Your task to perform on an android device: Go to battery settings Image 0: 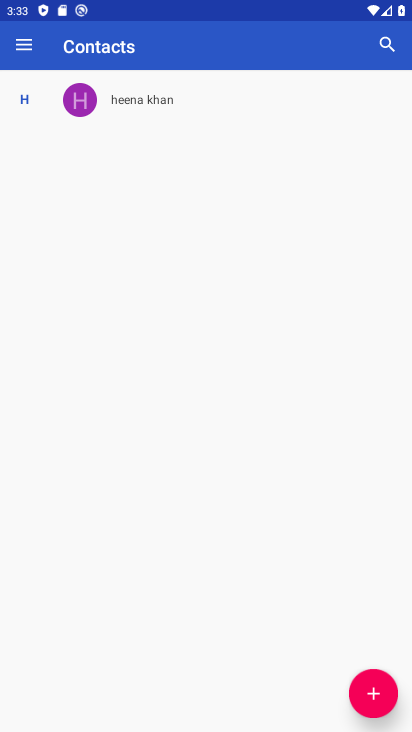
Step 0: press home button
Your task to perform on an android device: Go to battery settings Image 1: 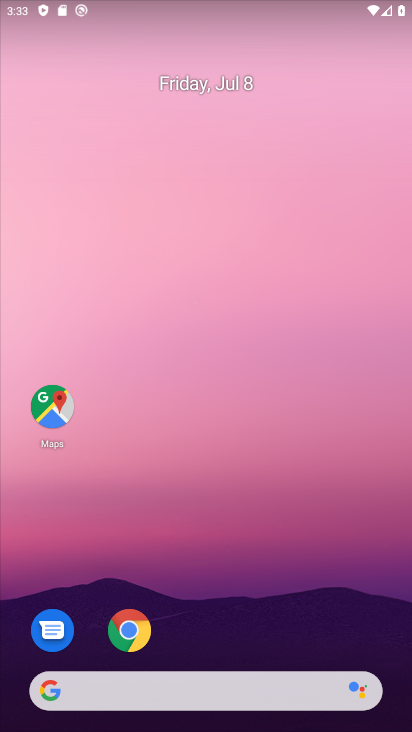
Step 1: drag from (214, 619) to (281, 187)
Your task to perform on an android device: Go to battery settings Image 2: 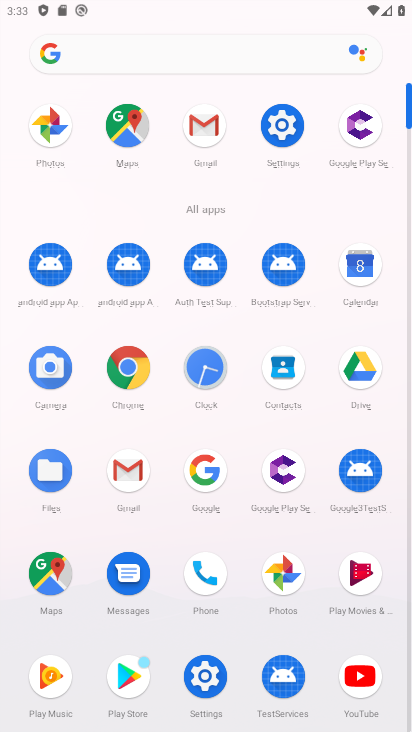
Step 2: drag from (274, 138) to (251, 199)
Your task to perform on an android device: Go to battery settings Image 3: 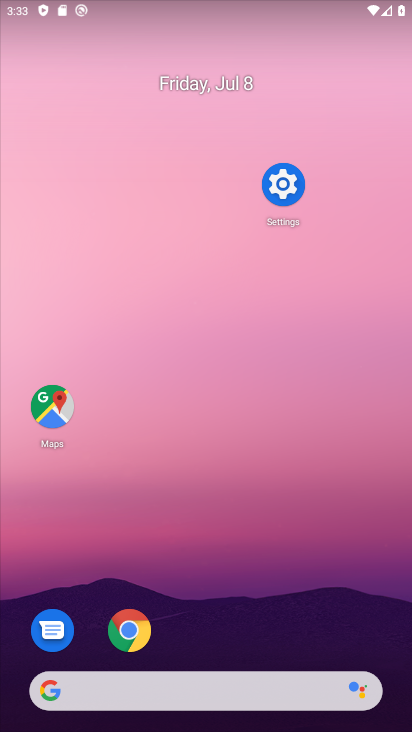
Step 3: click (280, 189)
Your task to perform on an android device: Go to battery settings Image 4: 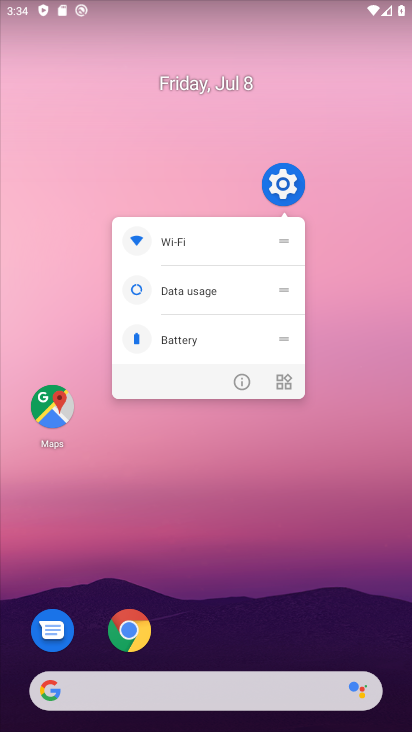
Step 4: click (387, 223)
Your task to perform on an android device: Go to battery settings Image 5: 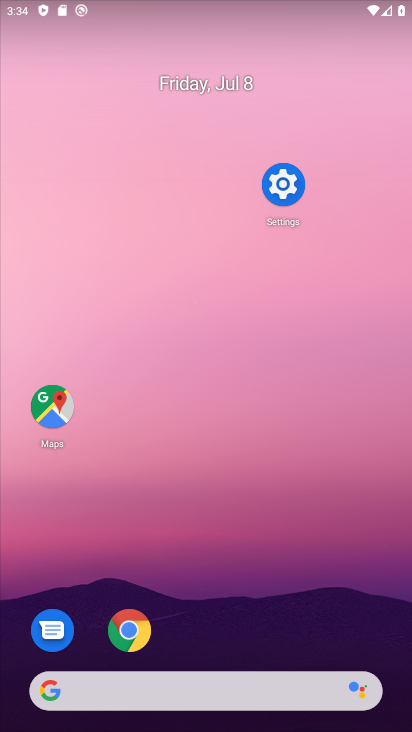
Step 5: click (282, 183)
Your task to perform on an android device: Go to battery settings Image 6: 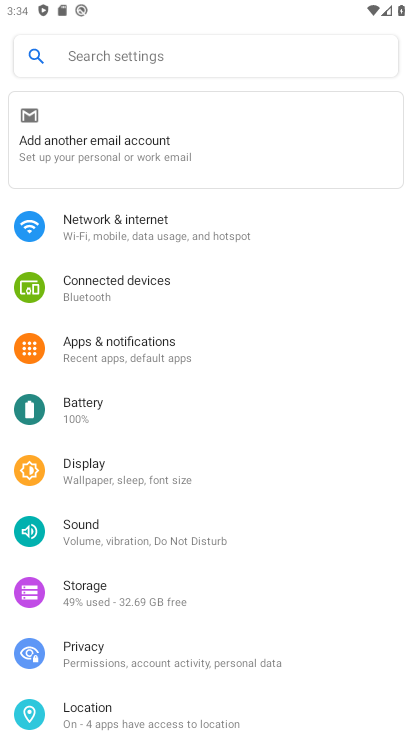
Step 6: click (149, 413)
Your task to perform on an android device: Go to battery settings Image 7: 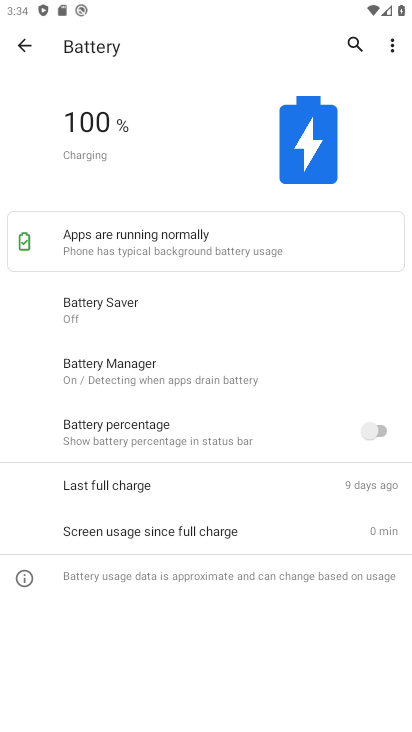
Step 7: task complete